Your task to perform on an android device: turn on translation in the chrome app Image 0: 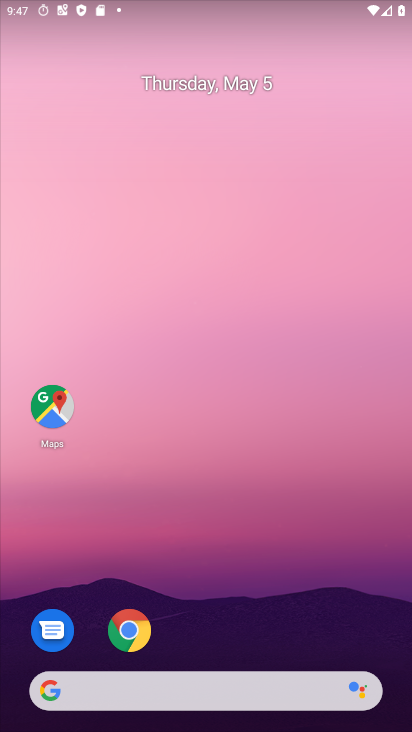
Step 0: click (132, 627)
Your task to perform on an android device: turn on translation in the chrome app Image 1: 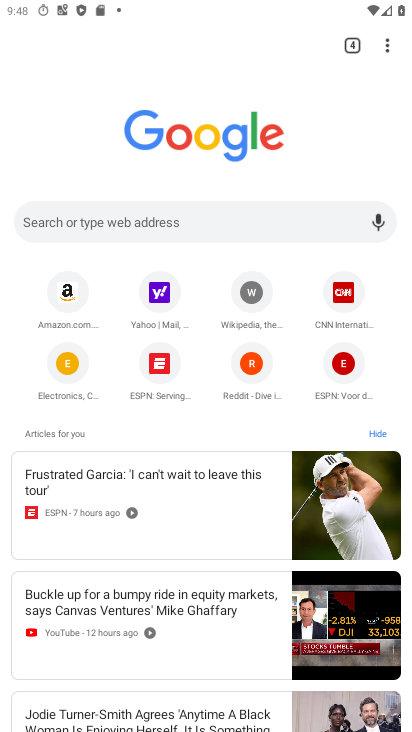
Step 1: drag from (387, 43) to (218, 380)
Your task to perform on an android device: turn on translation in the chrome app Image 2: 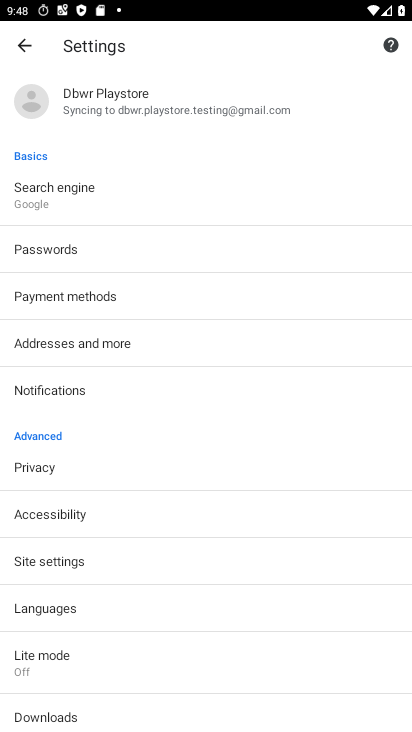
Step 2: click (27, 607)
Your task to perform on an android device: turn on translation in the chrome app Image 3: 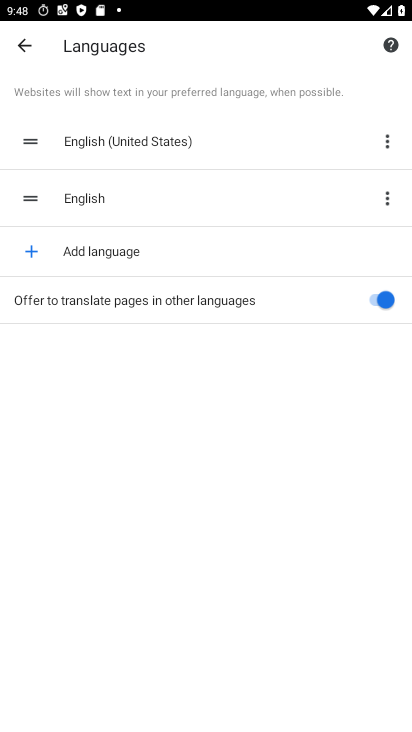
Step 3: task complete